Your task to perform on an android device: star an email in the gmail app Image 0: 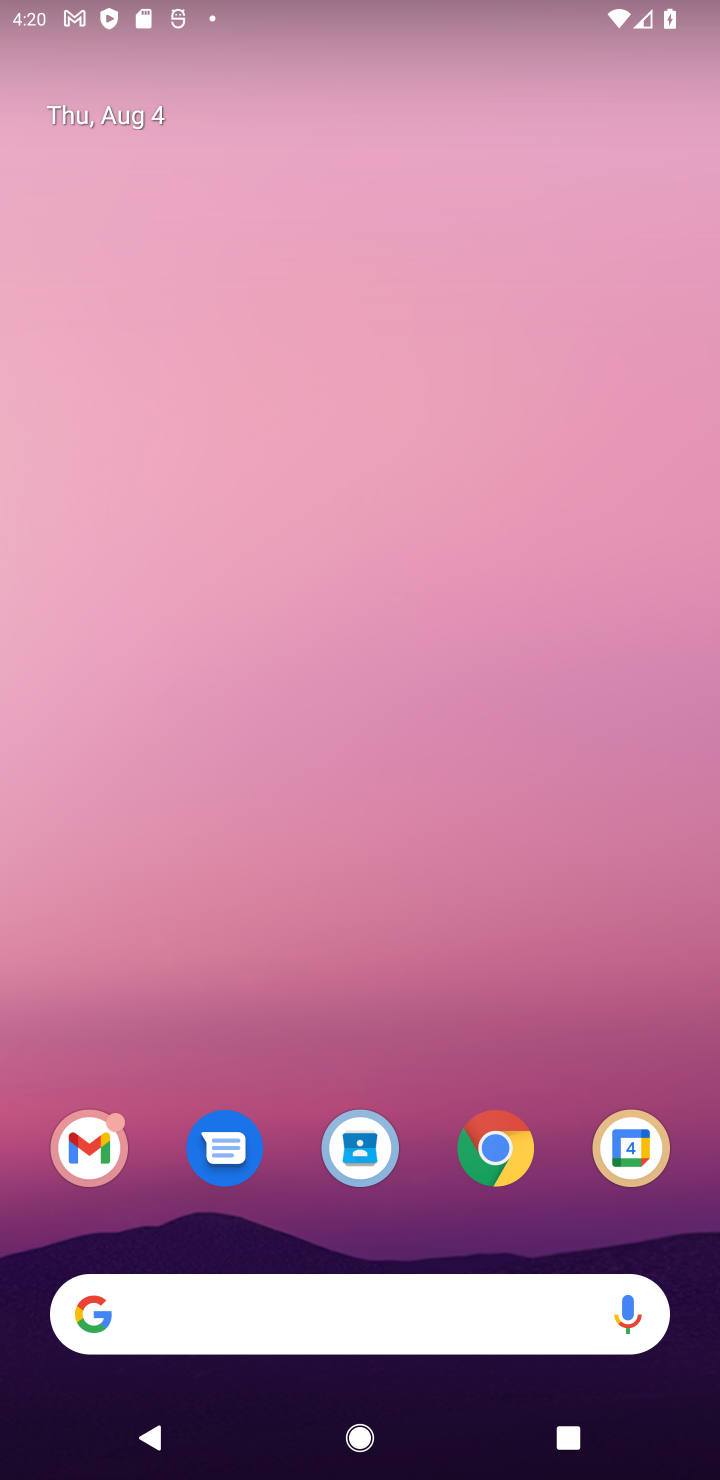
Step 0: click (89, 1148)
Your task to perform on an android device: star an email in the gmail app Image 1: 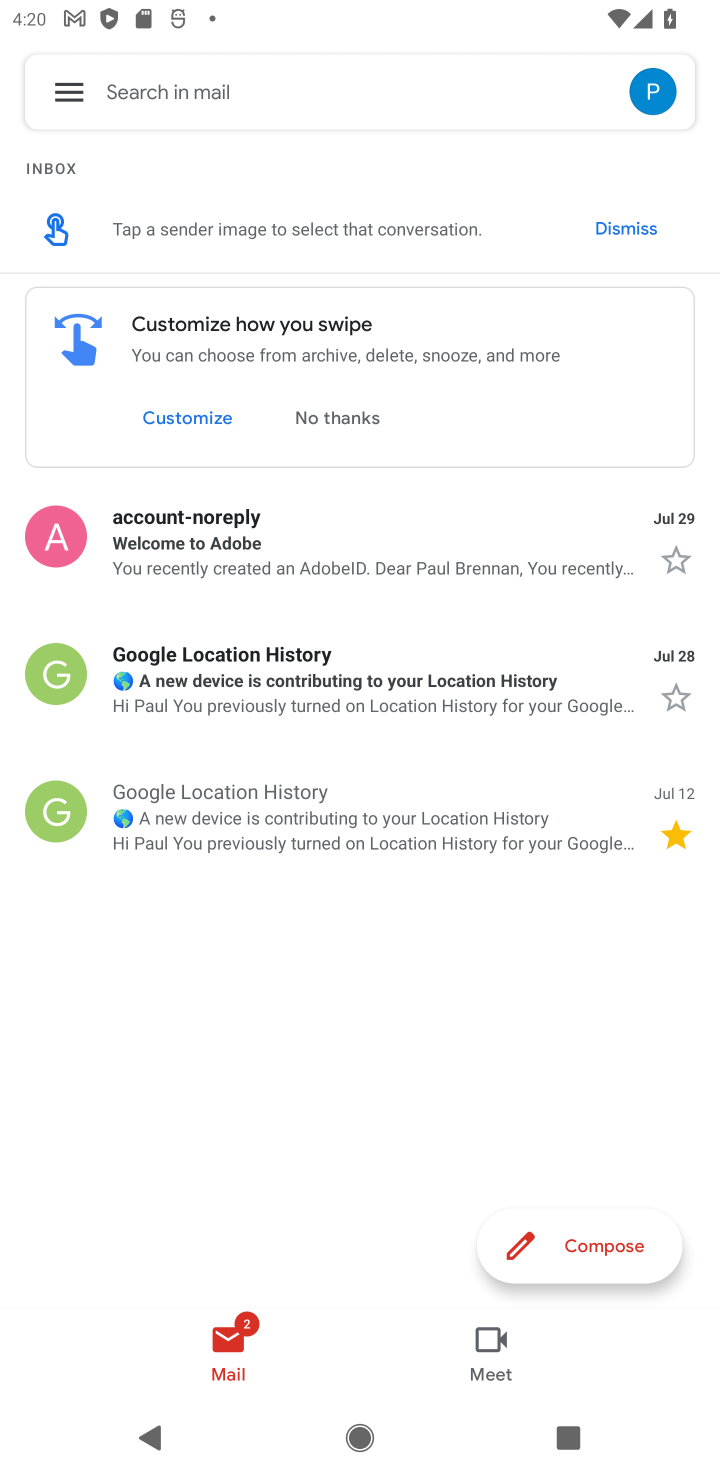
Step 1: click (676, 561)
Your task to perform on an android device: star an email in the gmail app Image 2: 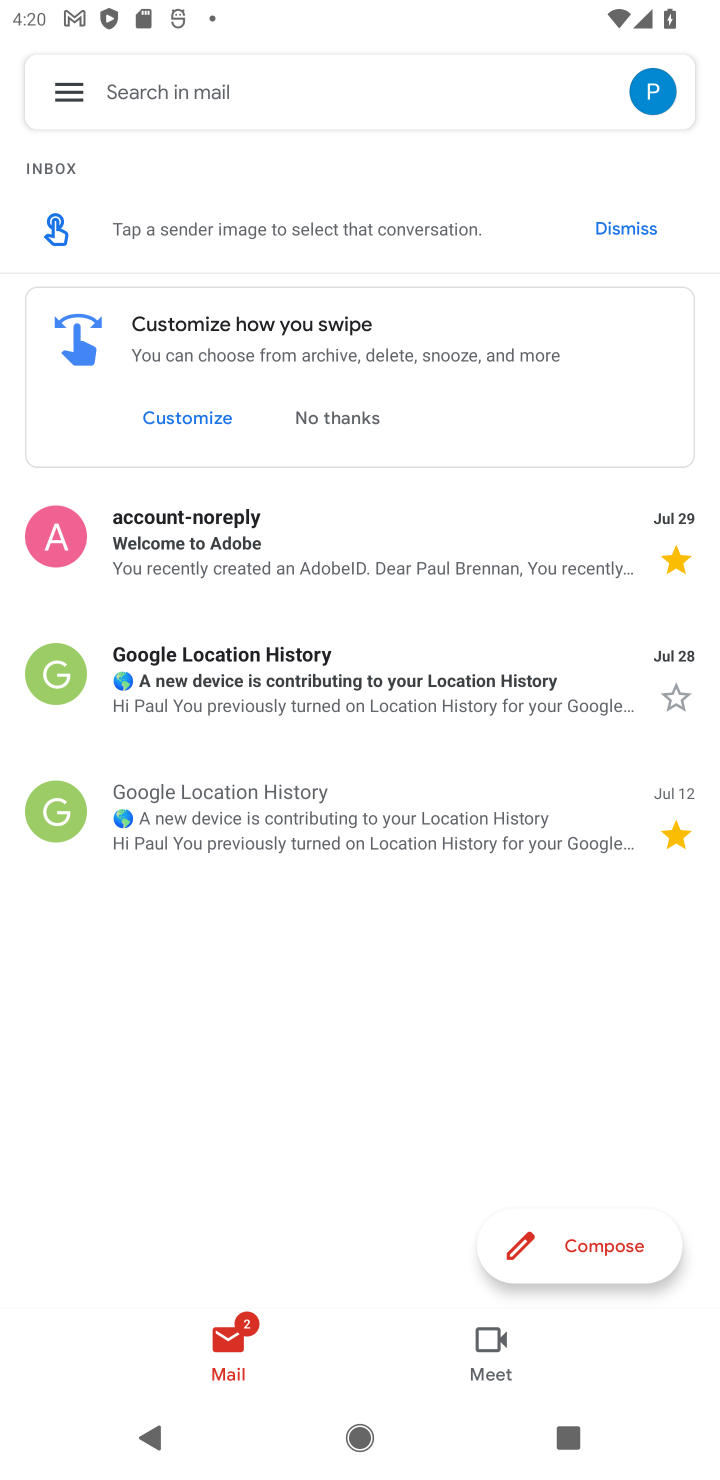
Step 2: task complete